Your task to perform on an android device: turn on the 12-hour format for clock Image 0: 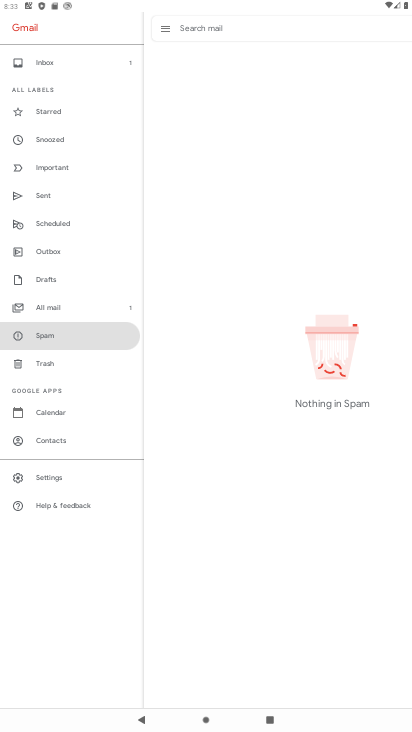
Step 0: press home button
Your task to perform on an android device: turn on the 12-hour format for clock Image 1: 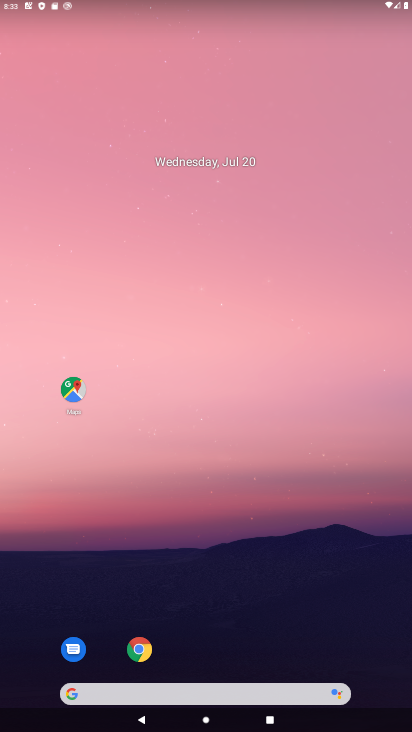
Step 1: drag from (198, 690) to (279, 168)
Your task to perform on an android device: turn on the 12-hour format for clock Image 2: 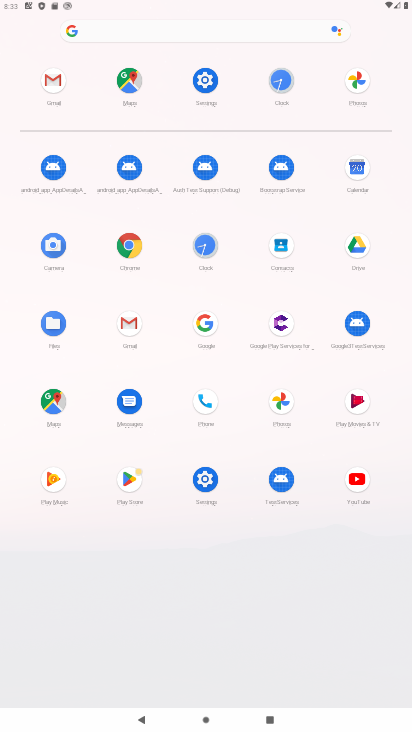
Step 2: click (281, 81)
Your task to perform on an android device: turn on the 12-hour format for clock Image 3: 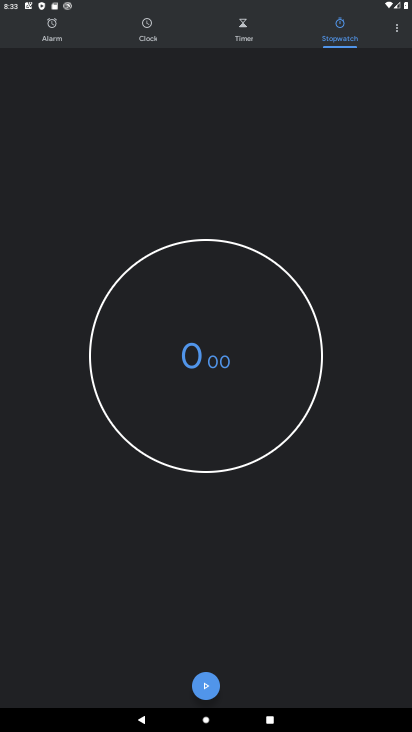
Step 3: click (398, 30)
Your task to perform on an android device: turn on the 12-hour format for clock Image 4: 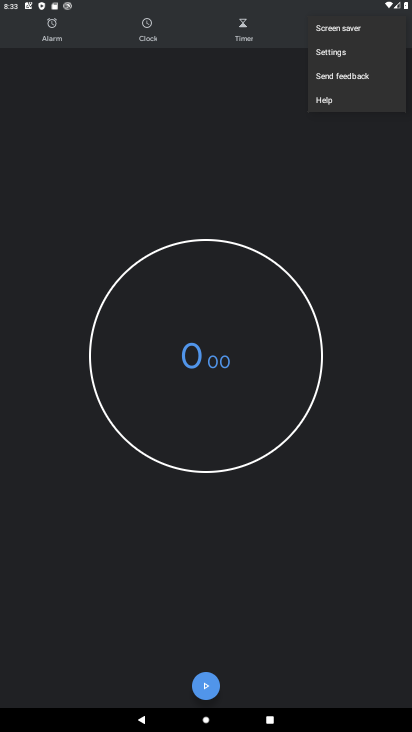
Step 4: click (336, 55)
Your task to perform on an android device: turn on the 12-hour format for clock Image 5: 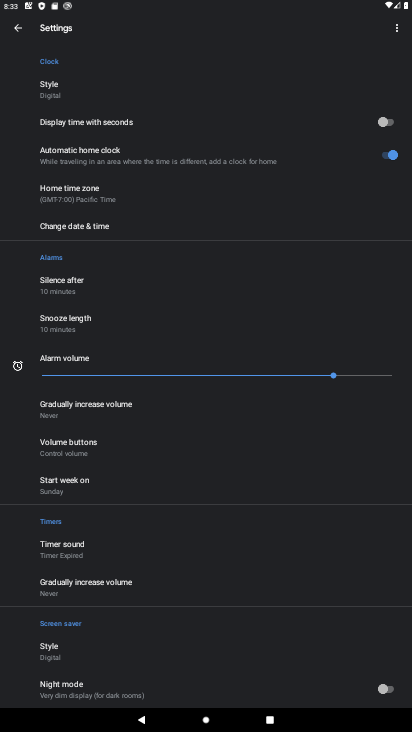
Step 5: click (99, 229)
Your task to perform on an android device: turn on the 12-hour format for clock Image 6: 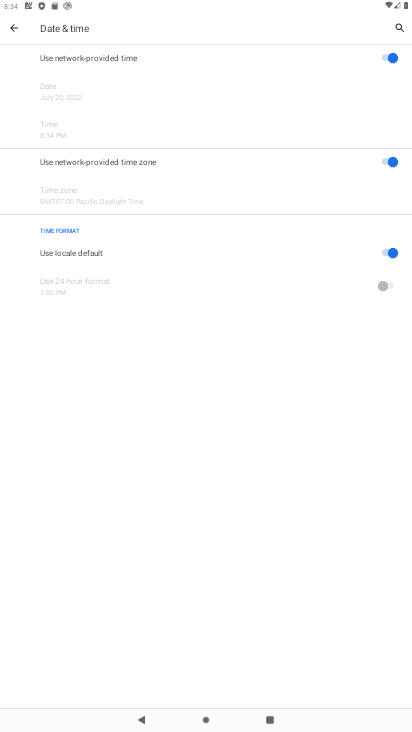
Step 6: task complete